Your task to perform on an android device: open a bookmark in the chrome app Image 0: 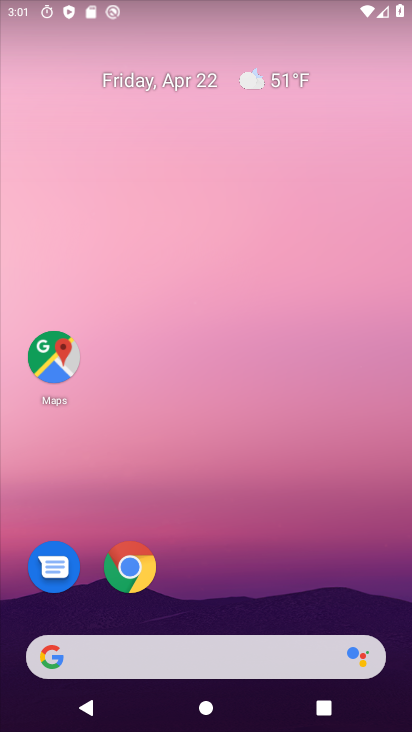
Step 0: click (122, 552)
Your task to perform on an android device: open a bookmark in the chrome app Image 1: 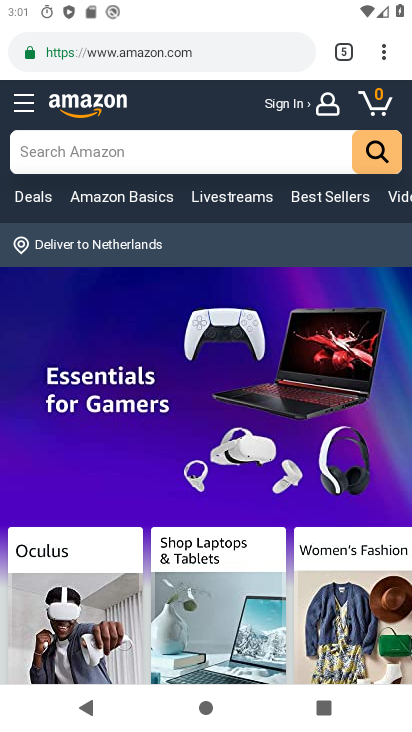
Step 1: click (383, 53)
Your task to perform on an android device: open a bookmark in the chrome app Image 2: 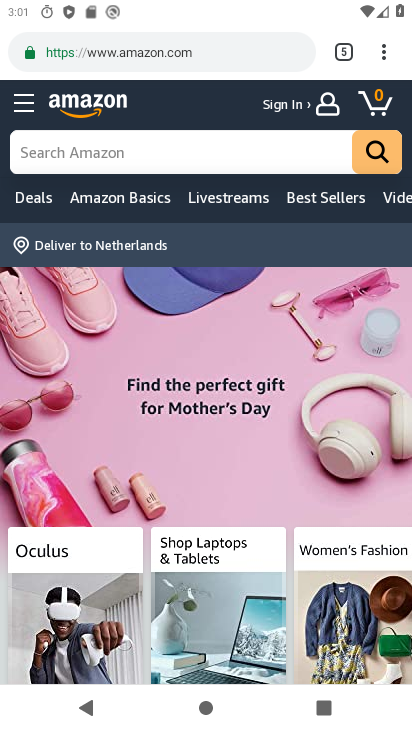
Step 2: click (384, 50)
Your task to perform on an android device: open a bookmark in the chrome app Image 3: 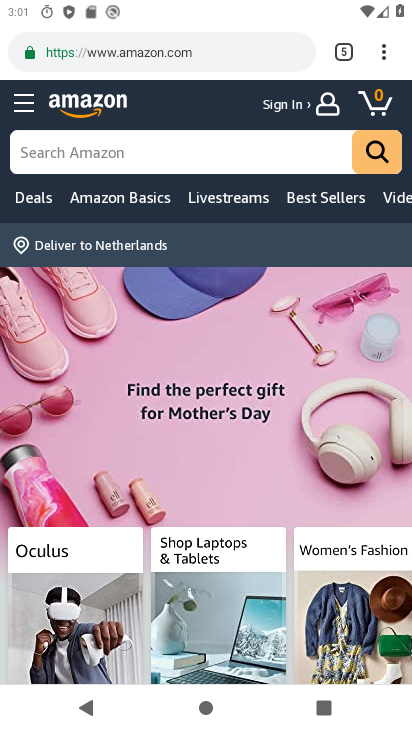
Step 3: click (382, 51)
Your task to perform on an android device: open a bookmark in the chrome app Image 4: 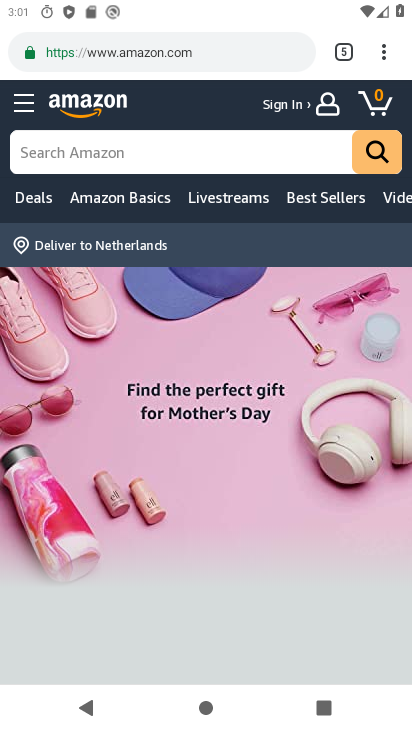
Step 4: click (382, 51)
Your task to perform on an android device: open a bookmark in the chrome app Image 5: 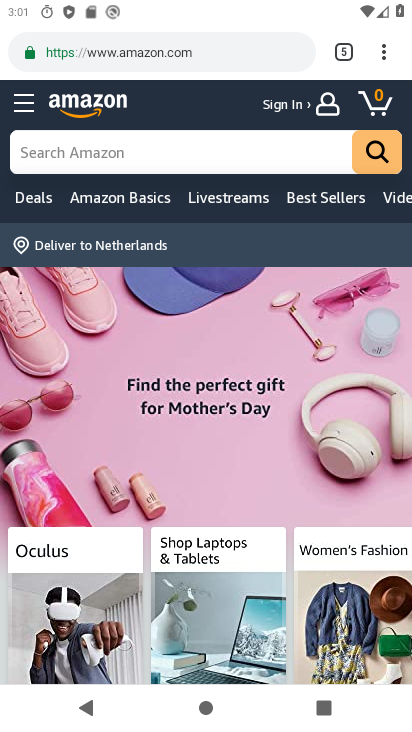
Step 5: click (382, 51)
Your task to perform on an android device: open a bookmark in the chrome app Image 6: 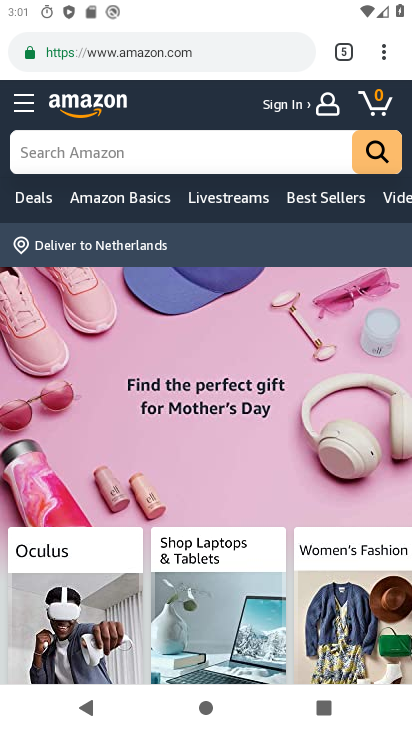
Step 6: click (382, 51)
Your task to perform on an android device: open a bookmark in the chrome app Image 7: 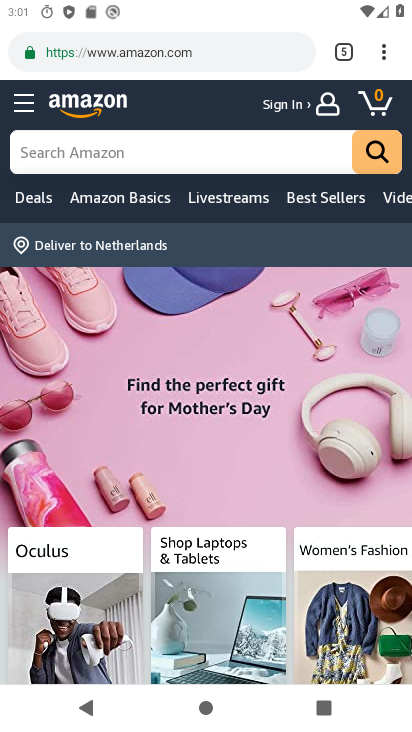
Step 7: click (382, 51)
Your task to perform on an android device: open a bookmark in the chrome app Image 8: 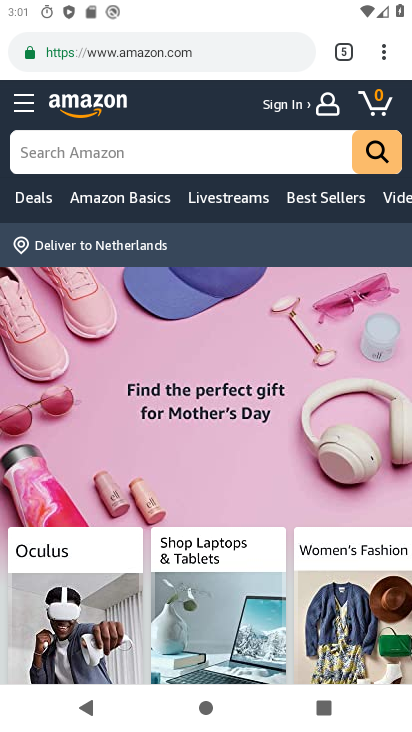
Step 8: click (382, 51)
Your task to perform on an android device: open a bookmark in the chrome app Image 9: 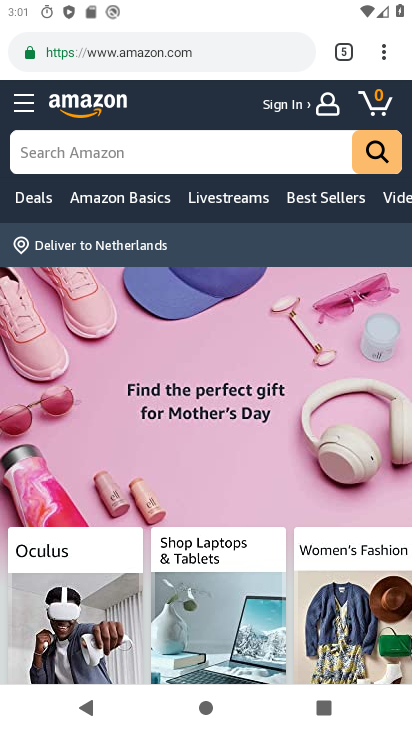
Step 9: click (382, 51)
Your task to perform on an android device: open a bookmark in the chrome app Image 10: 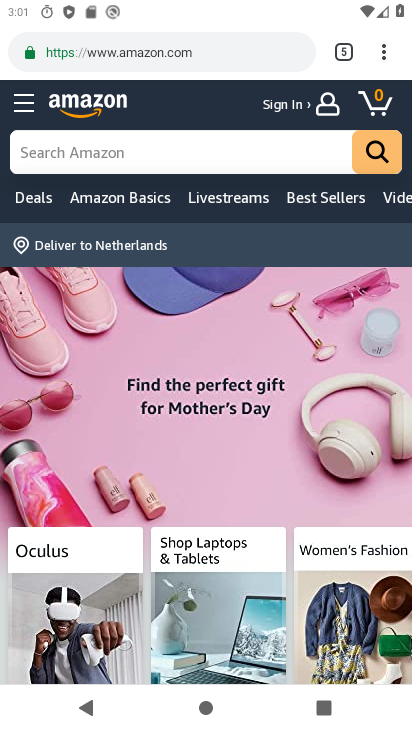
Step 10: click (382, 51)
Your task to perform on an android device: open a bookmark in the chrome app Image 11: 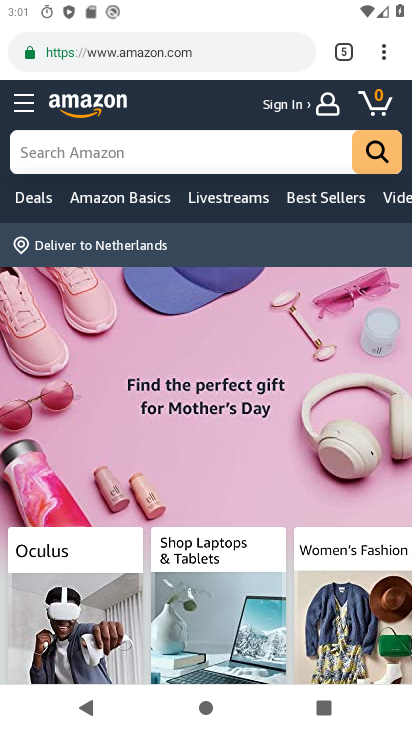
Step 11: click (382, 51)
Your task to perform on an android device: open a bookmark in the chrome app Image 12: 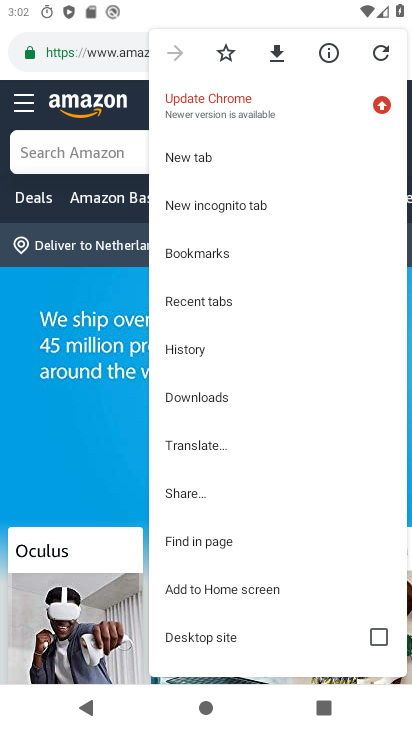
Step 12: click (205, 258)
Your task to perform on an android device: open a bookmark in the chrome app Image 13: 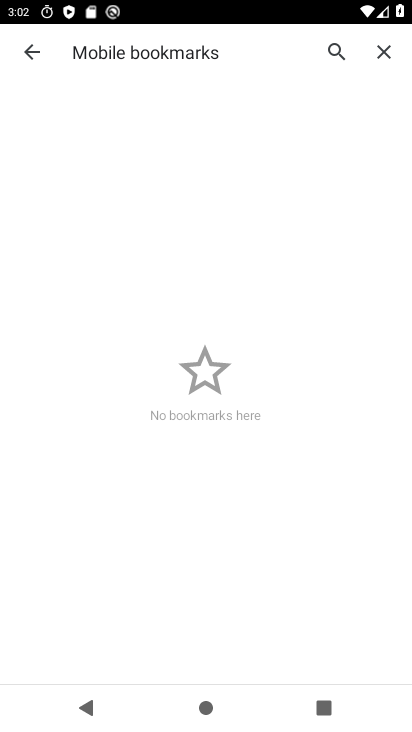
Step 13: task complete